Your task to perform on an android device: Open notification settings Image 0: 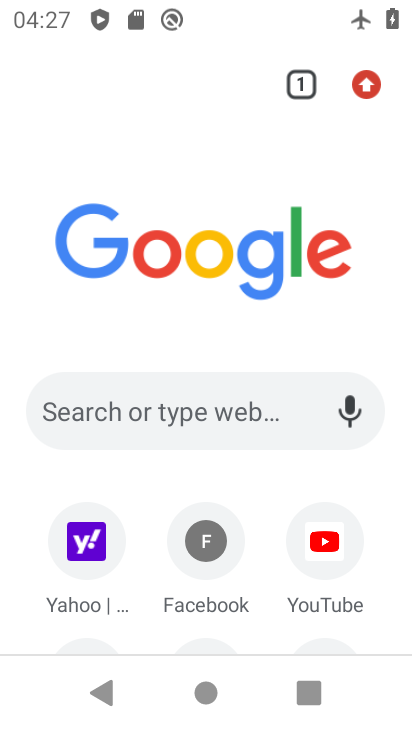
Step 0: press home button
Your task to perform on an android device: Open notification settings Image 1: 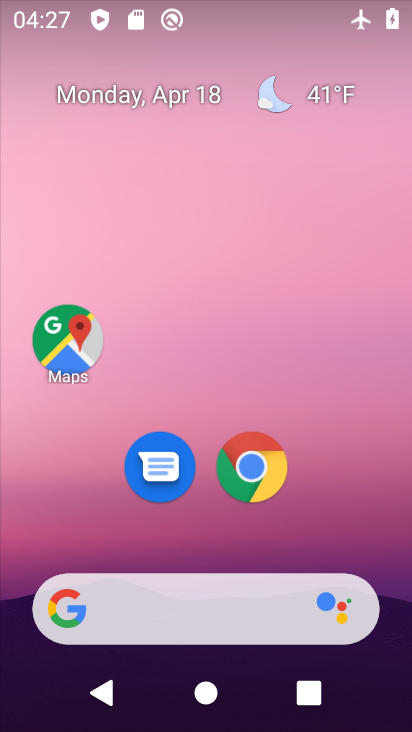
Step 1: drag from (244, 555) to (188, 165)
Your task to perform on an android device: Open notification settings Image 2: 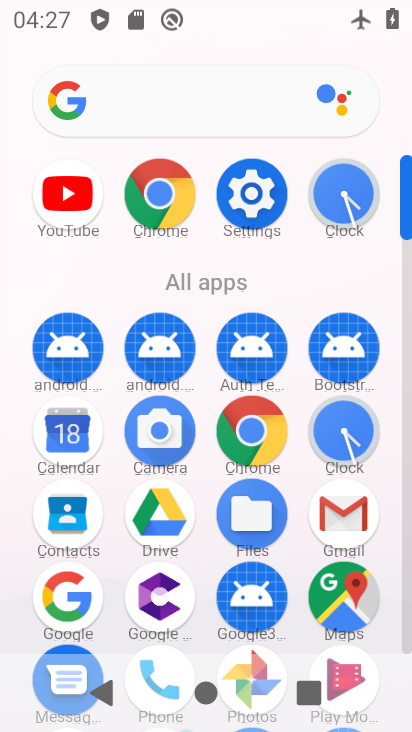
Step 2: click (236, 182)
Your task to perform on an android device: Open notification settings Image 3: 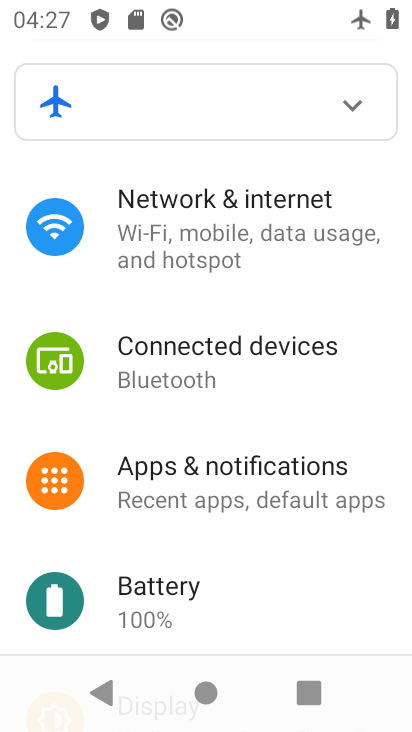
Step 3: drag from (255, 520) to (255, 295)
Your task to perform on an android device: Open notification settings Image 4: 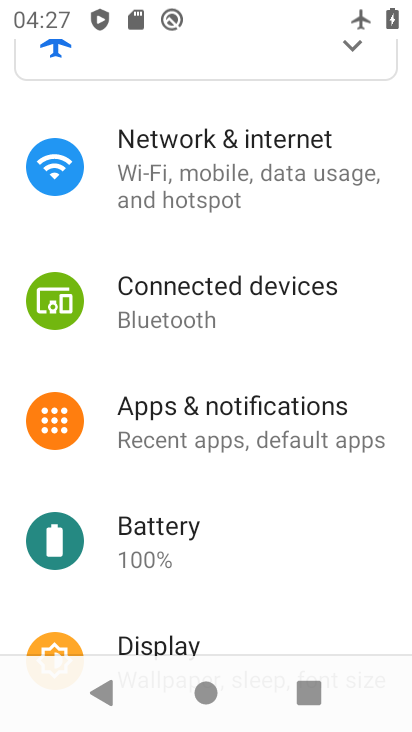
Step 4: click (268, 430)
Your task to perform on an android device: Open notification settings Image 5: 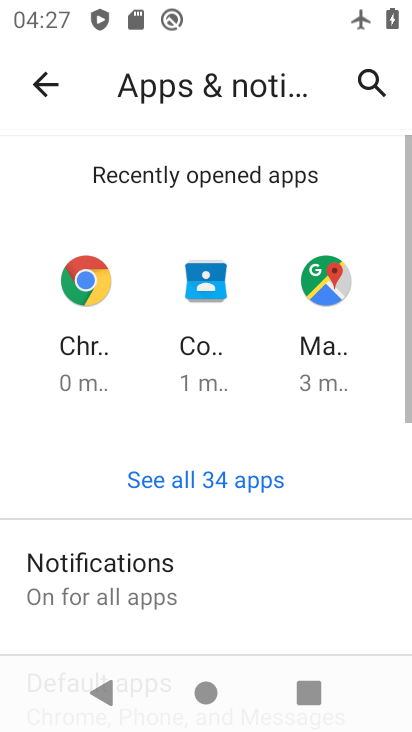
Step 5: drag from (227, 517) to (234, 373)
Your task to perform on an android device: Open notification settings Image 6: 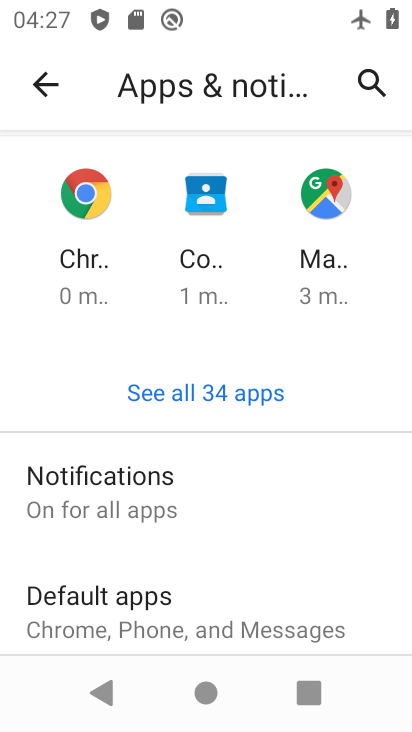
Step 6: drag from (238, 541) to (238, 367)
Your task to perform on an android device: Open notification settings Image 7: 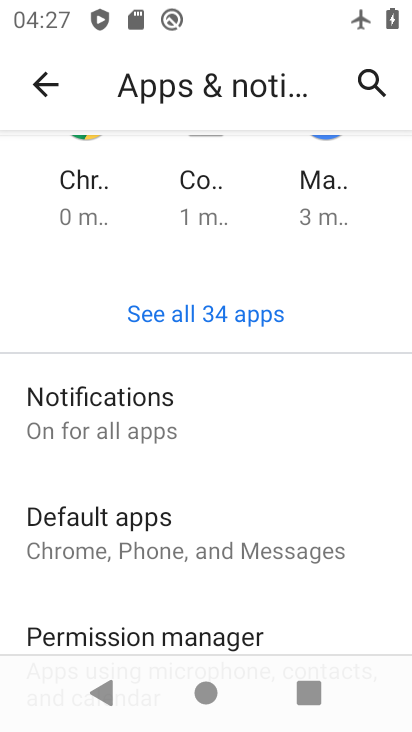
Step 7: click (199, 413)
Your task to perform on an android device: Open notification settings Image 8: 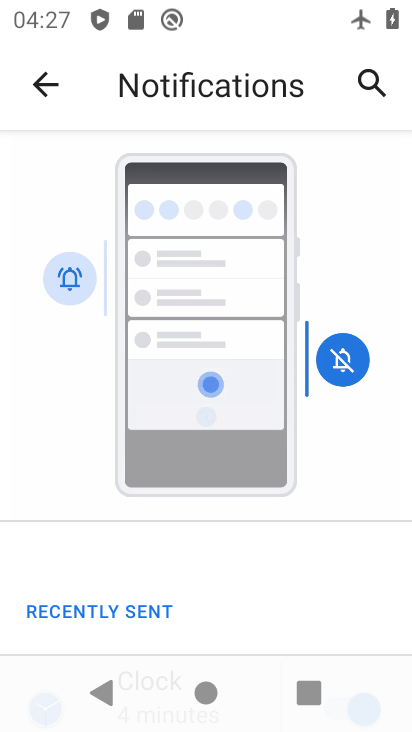
Step 8: task complete